Your task to perform on an android device: Clear the cart on amazon.com. Search for razer naga on amazon.com, select the first entry, and add it to the cart. Image 0: 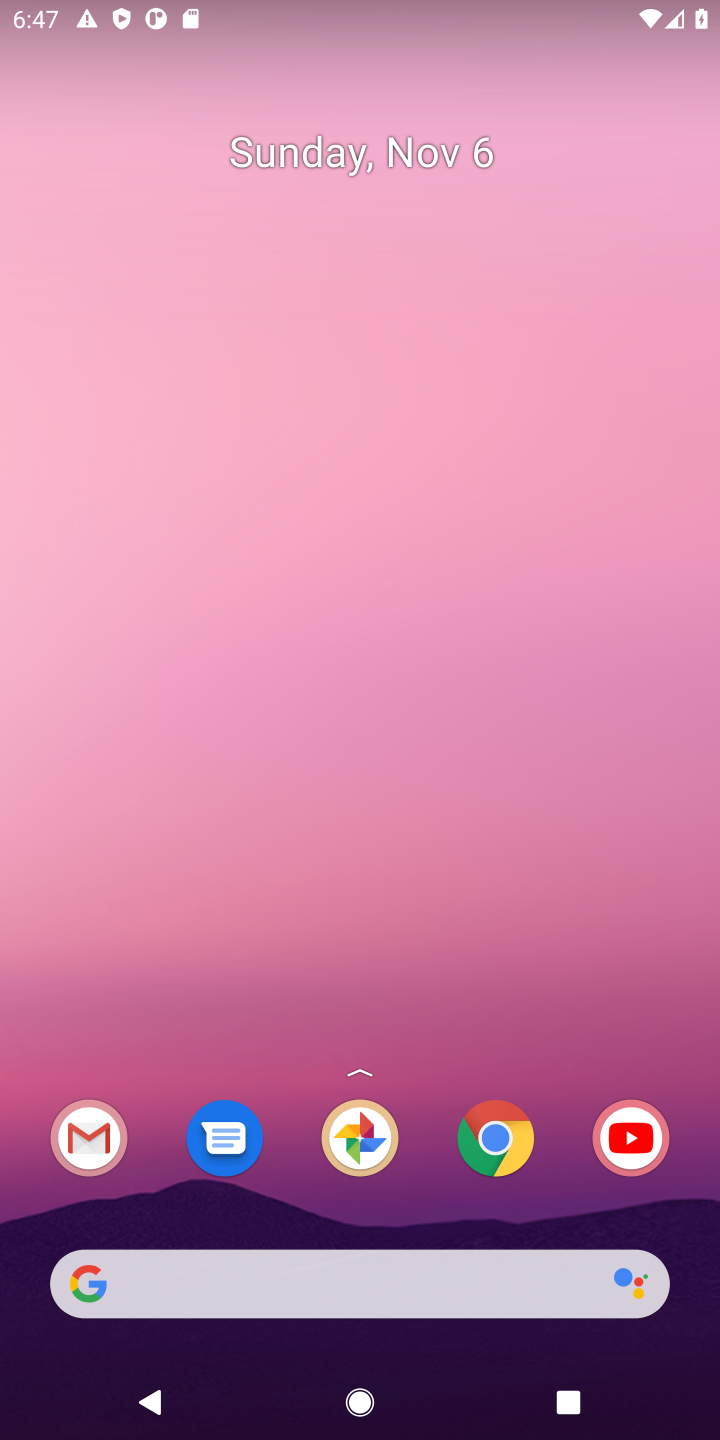
Step 0: click (490, 1142)
Your task to perform on an android device: Clear the cart on amazon.com. Search for razer naga on amazon.com, select the first entry, and add it to the cart. Image 1: 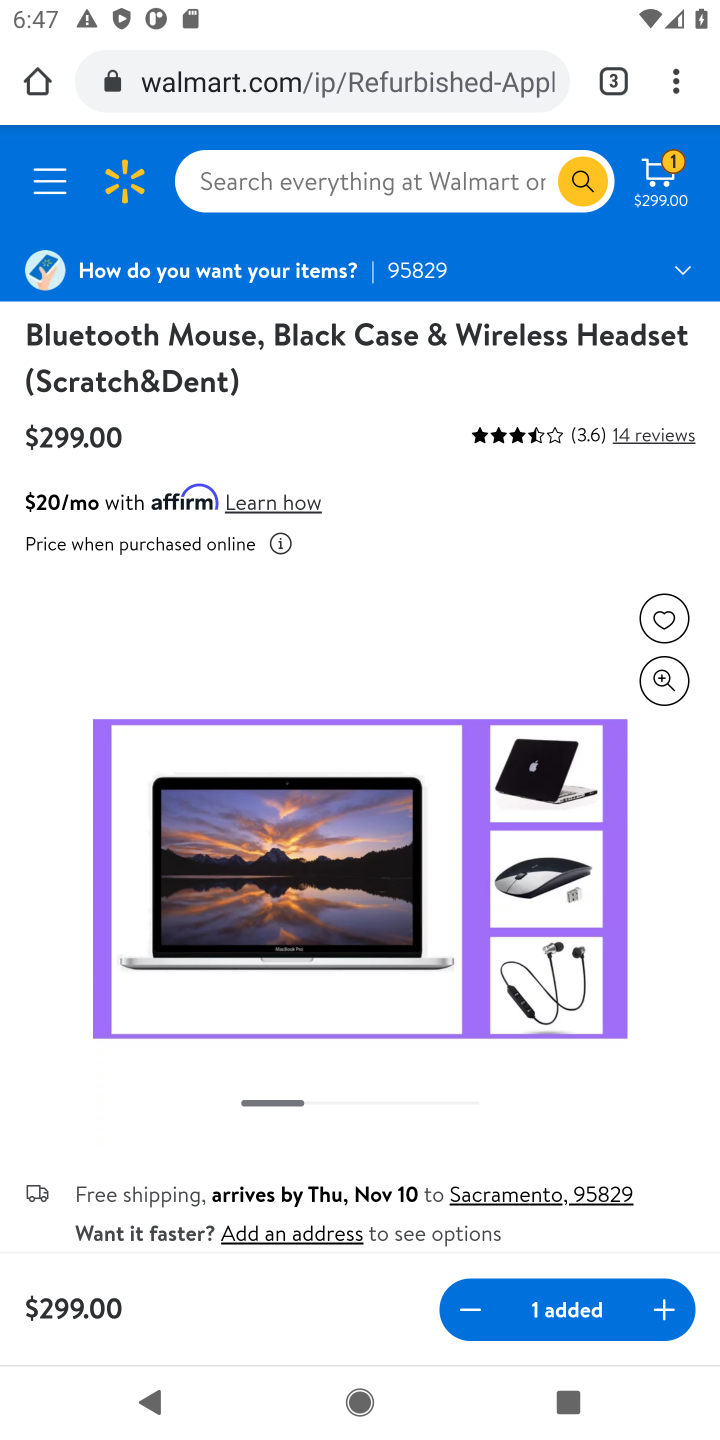
Step 1: click (622, 89)
Your task to perform on an android device: Clear the cart on amazon.com. Search for razer naga on amazon.com, select the first entry, and add it to the cart. Image 2: 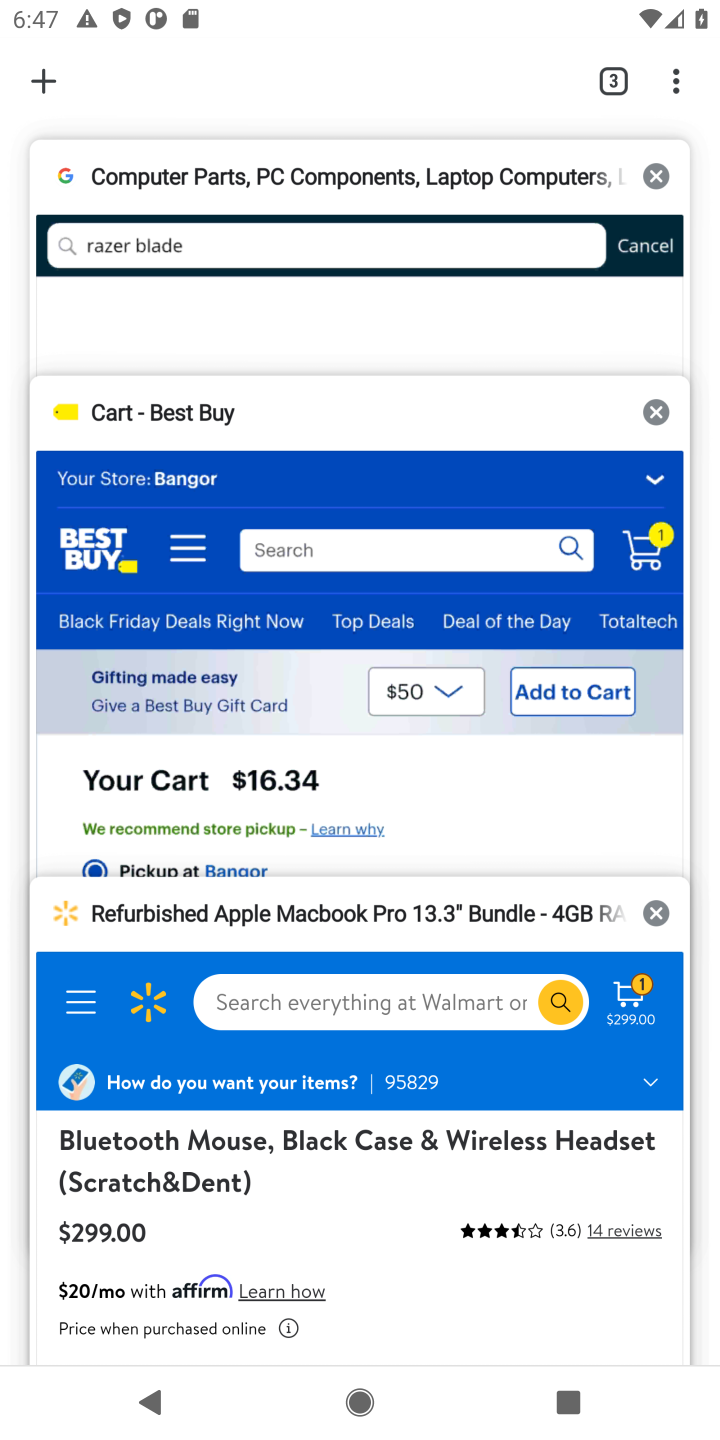
Step 2: click (37, 87)
Your task to perform on an android device: Clear the cart on amazon.com. Search for razer naga on amazon.com, select the first entry, and add it to the cart. Image 3: 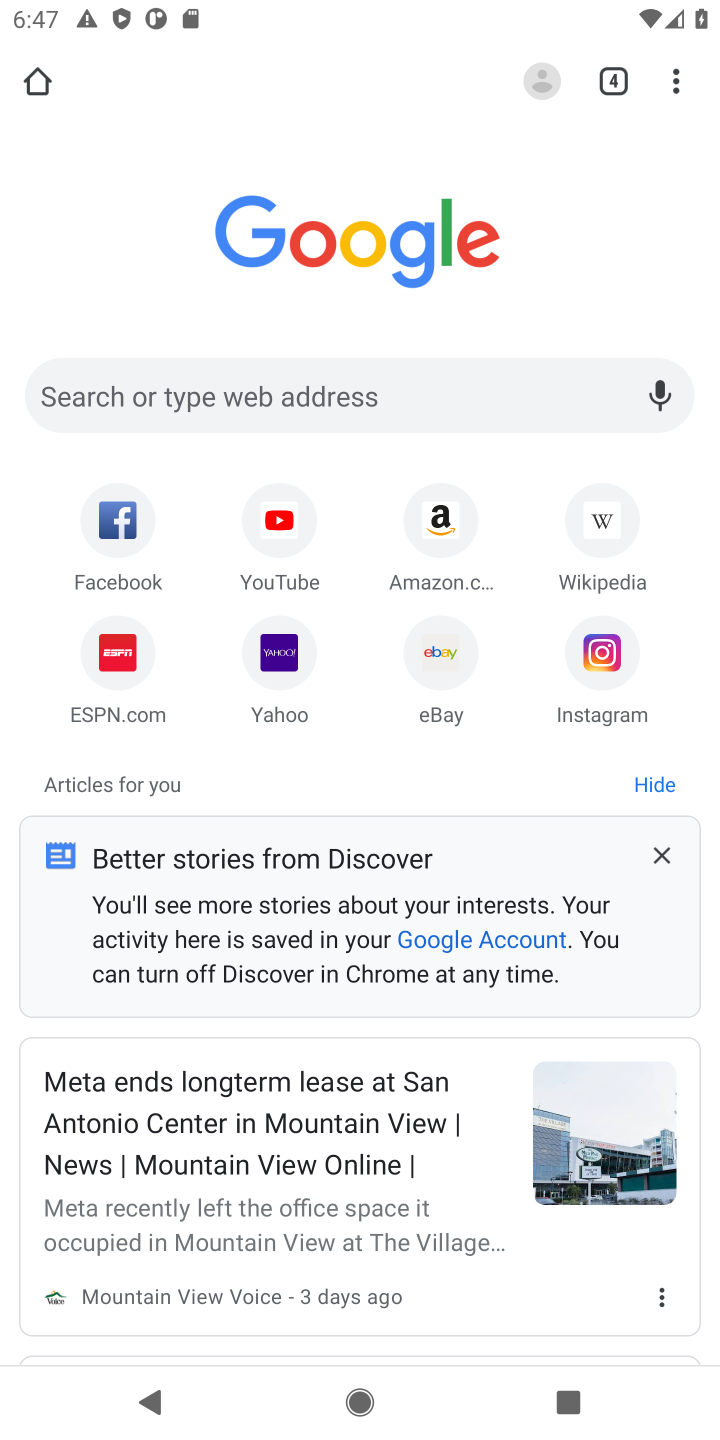
Step 3: click (446, 518)
Your task to perform on an android device: Clear the cart on amazon.com. Search for razer naga on amazon.com, select the first entry, and add it to the cart. Image 4: 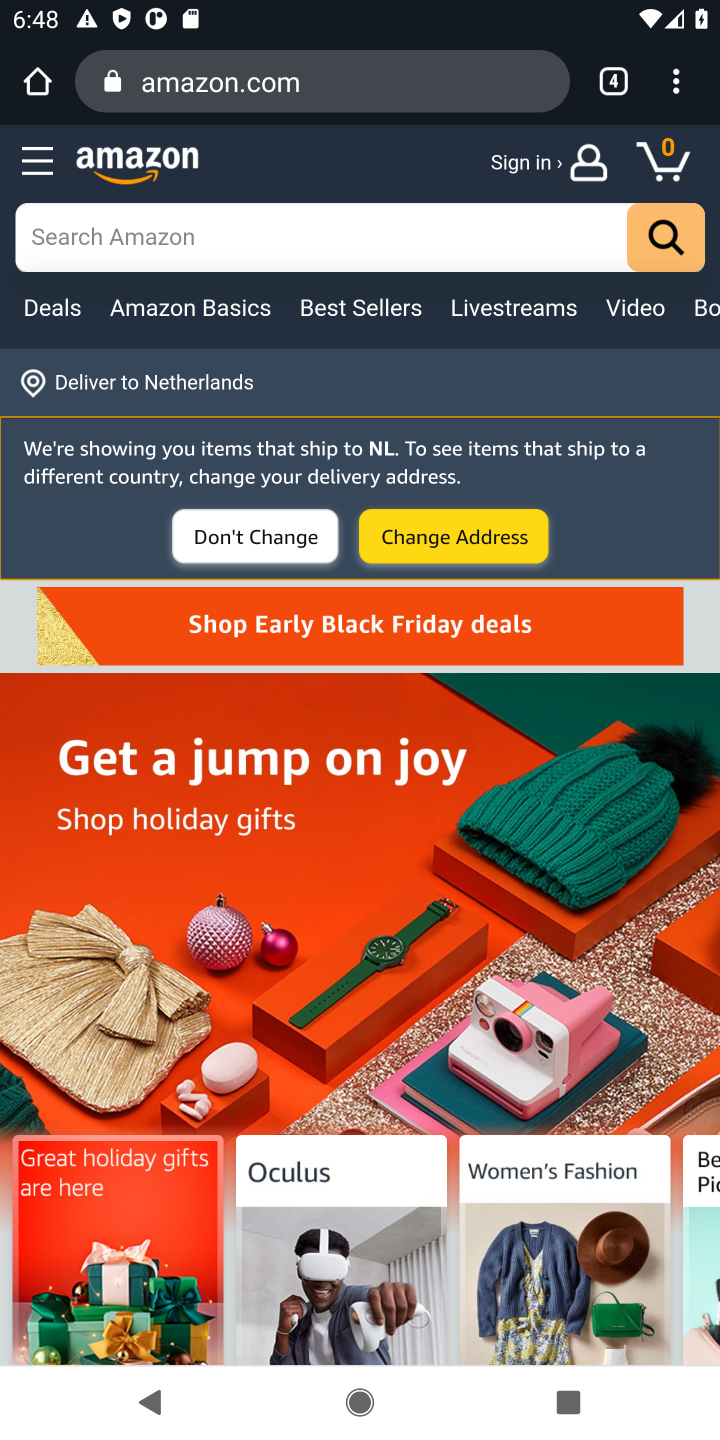
Step 4: click (143, 245)
Your task to perform on an android device: Clear the cart on amazon.com. Search for razer naga on amazon.com, select the first entry, and add it to the cart. Image 5: 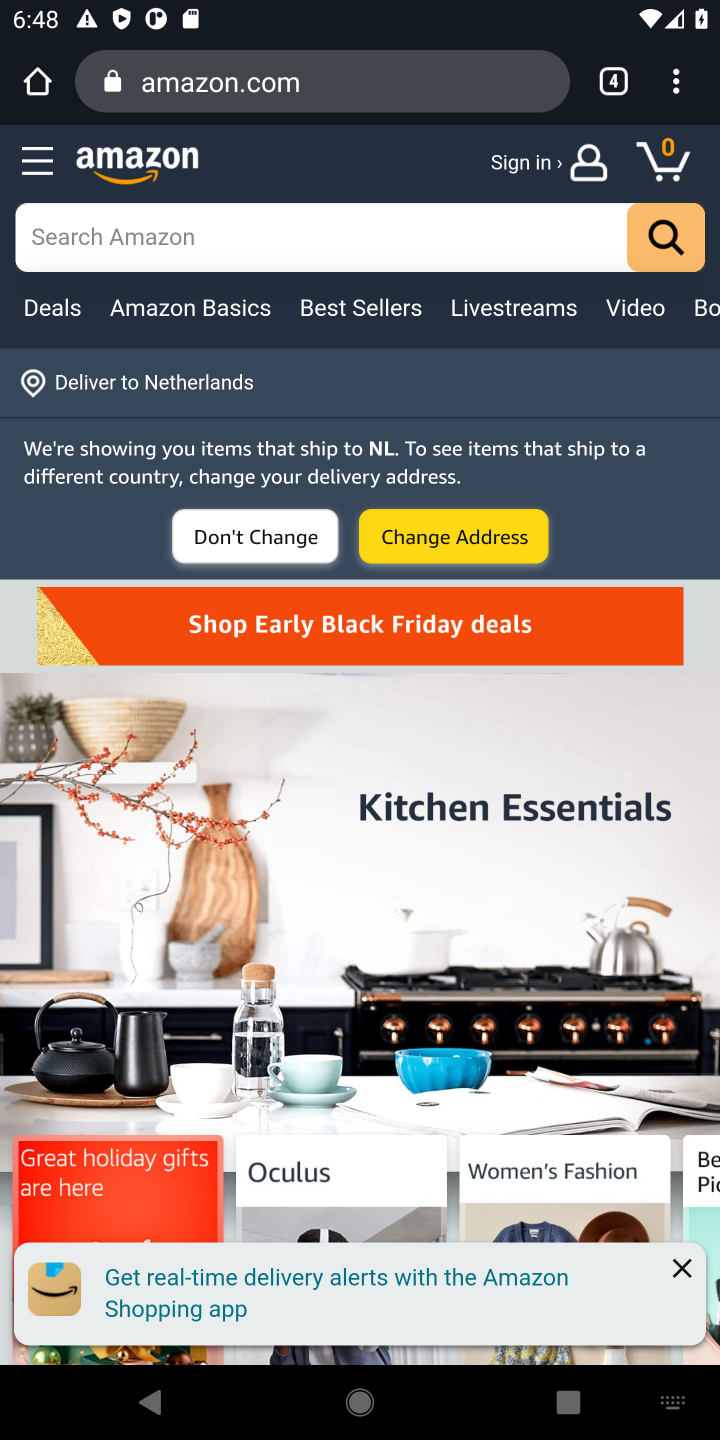
Step 5: type "razer naga"
Your task to perform on an android device: Clear the cart on amazon.com. Search for razer naga on amazon.com, select the first entry, and add it to the cart. Image 6: 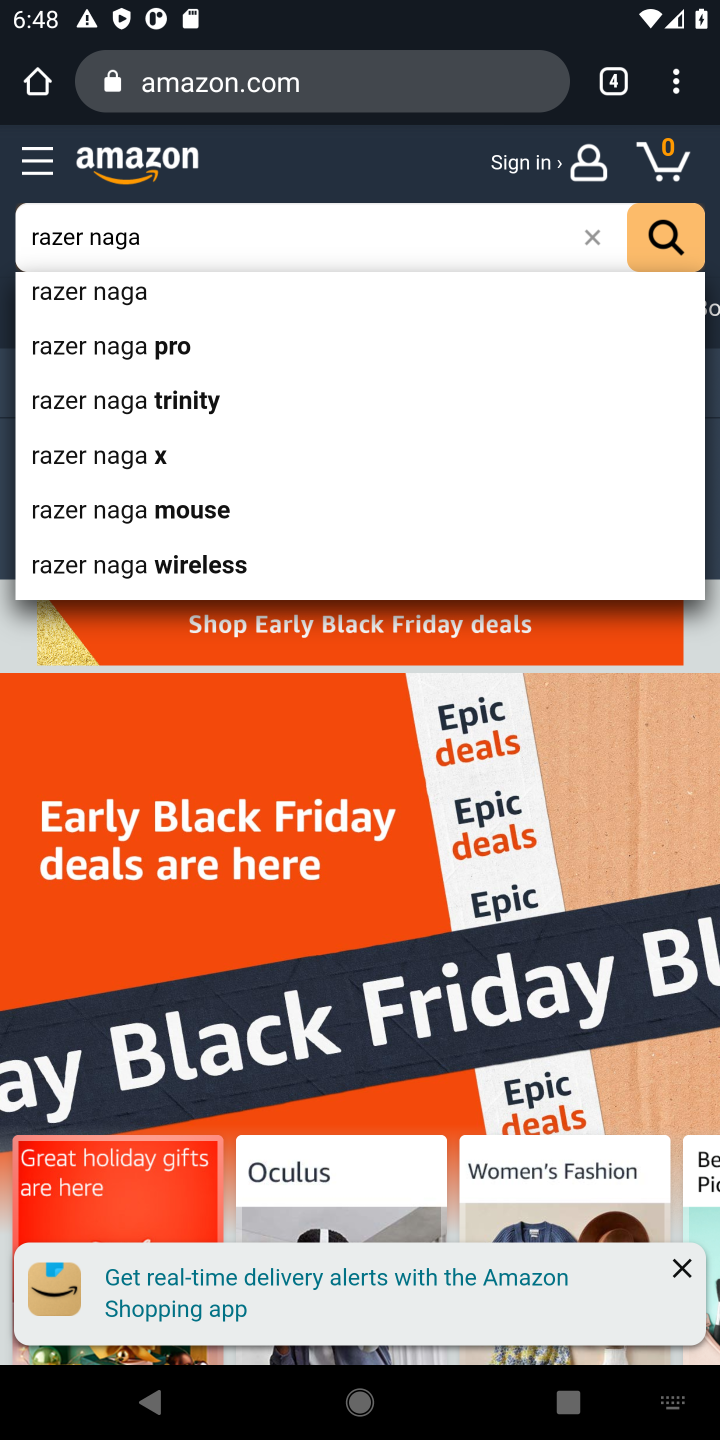
Step 6: click (137, 287)
Your task to perform on an android device: Clear the cart on amazon.com. Search for razer naga on amazon.com, select the first entry, and add it to the cart. Image 7: 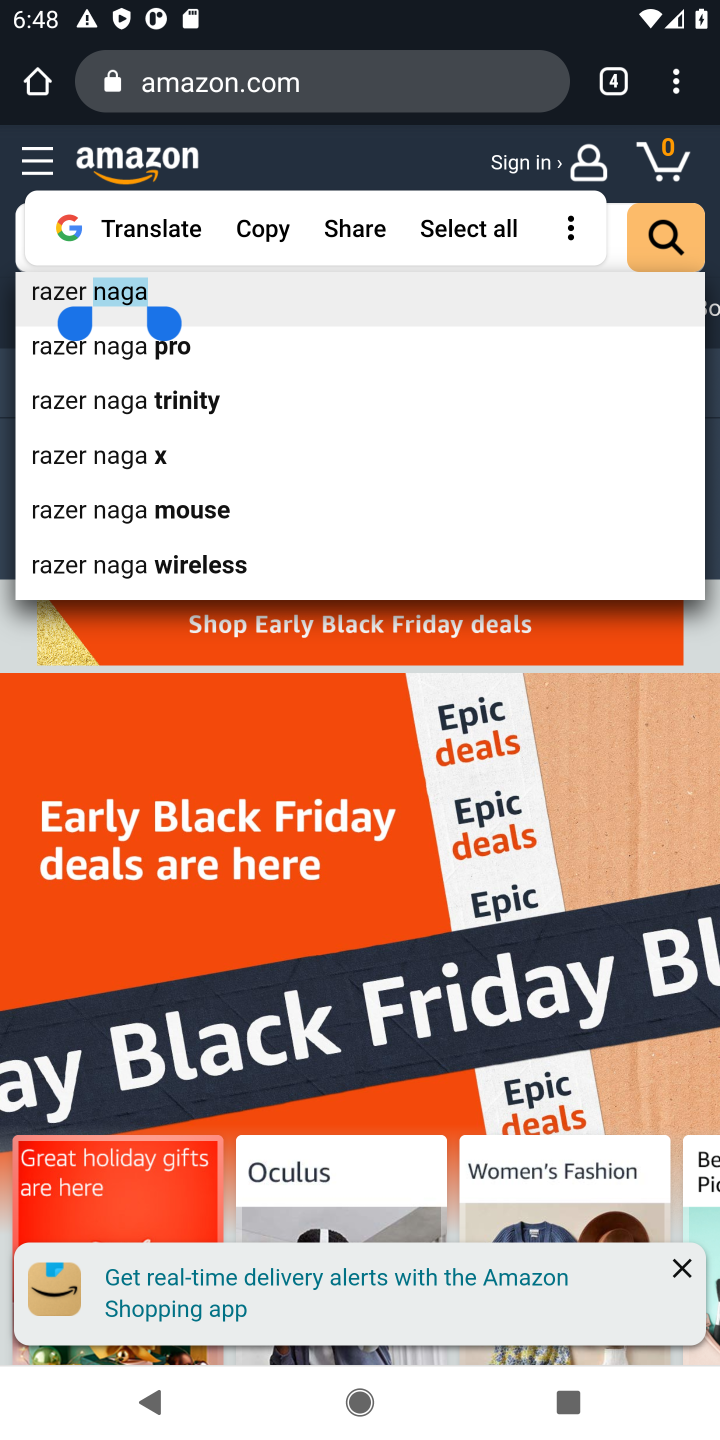
Step 7: click (42, 289)
Your task to perform on an android device: Clear the cart on amazon.com. Search for razer naga on amazon.com, select the first entry, and add it to the cart. Image 8: 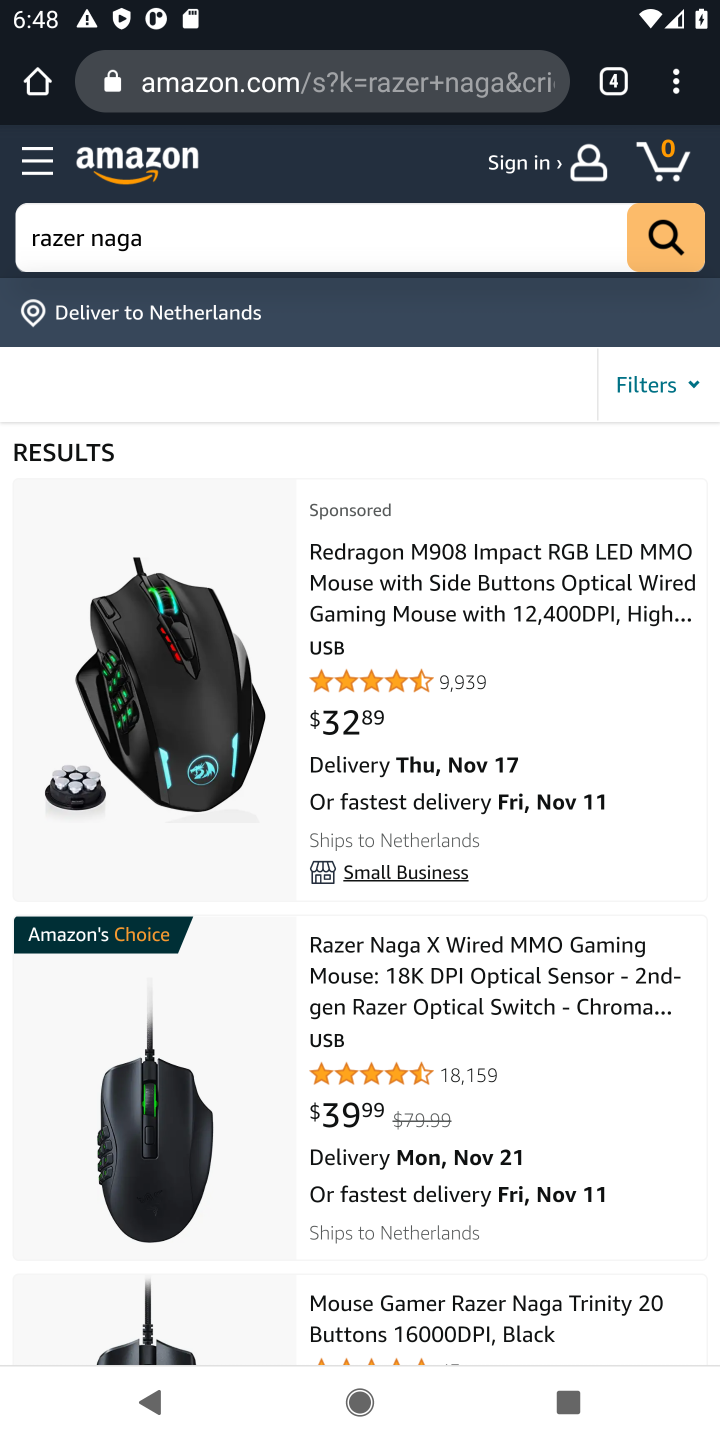
Step 8: click (492, 975)
Your task to perform on an android device: Clear the cart on amazon.com. Search for razer naga on amazon.com, select the first entry, and add it to the cart. Image 9: 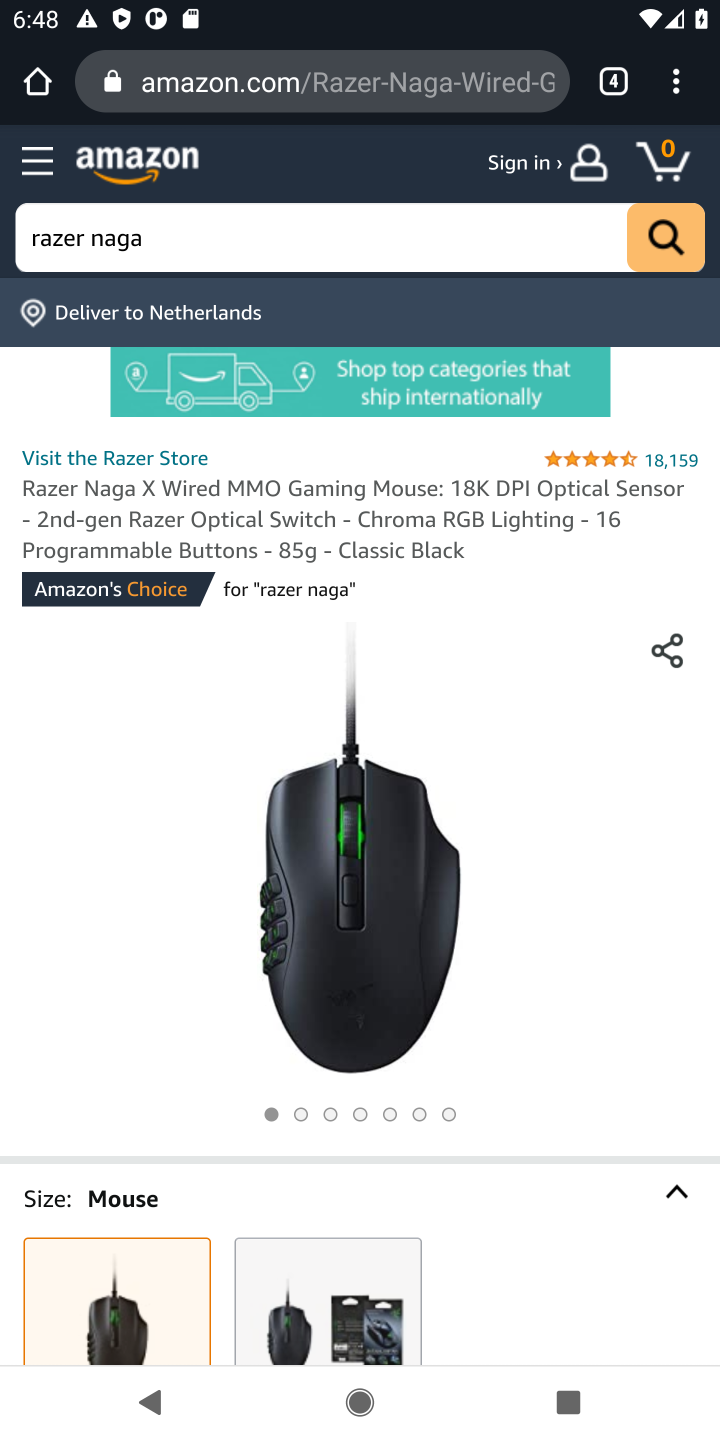
Step 9: drag from (294, 1136) to (407, 498)
Your task to perform on an android device: Clear the cart on amazon.com. Search for razer naga on amazon.com, select the first entry, and add it to the cart. Image 10: 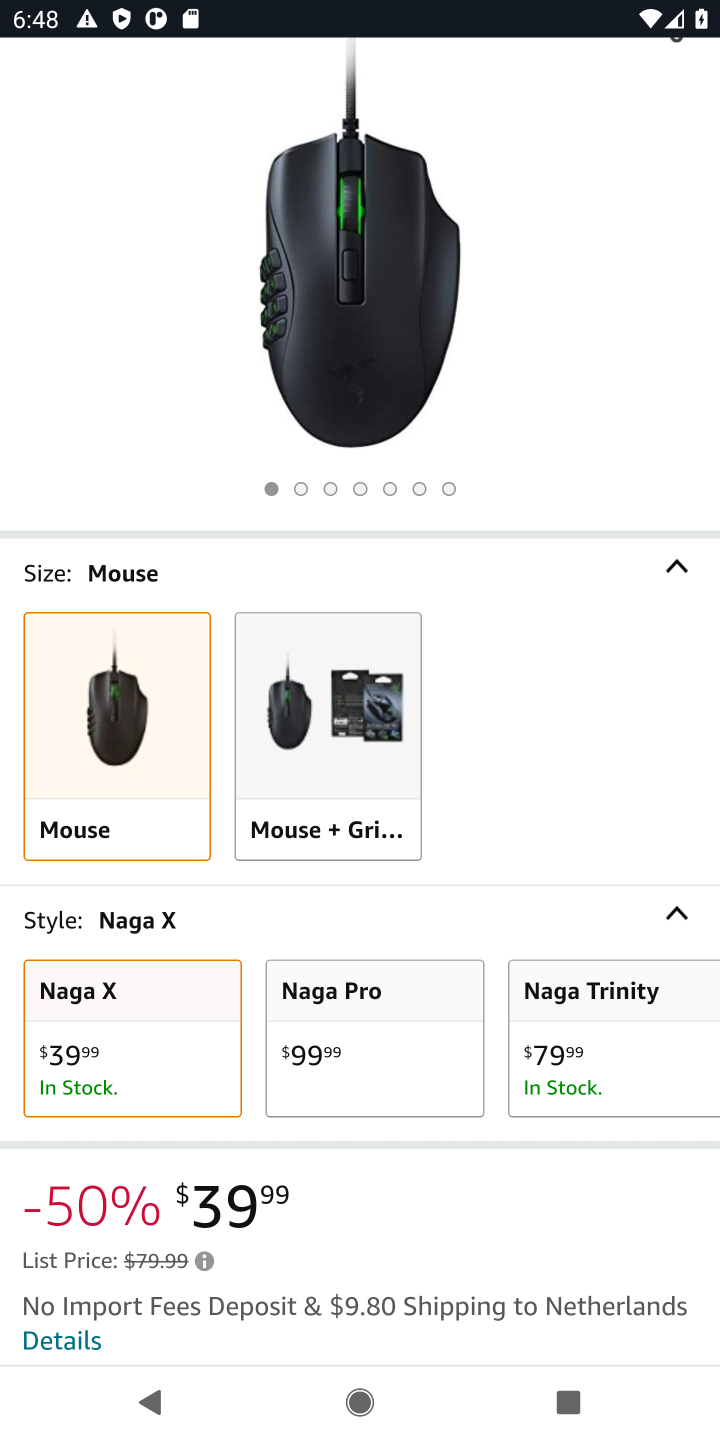
Step 10: drag from (398, 1201) to (482, 637)
Your task to perform on an android device: Clear the cart on amazon.com. Search for razer naga on amazon.com, select the first entry, and add it to the cart. Image 11: 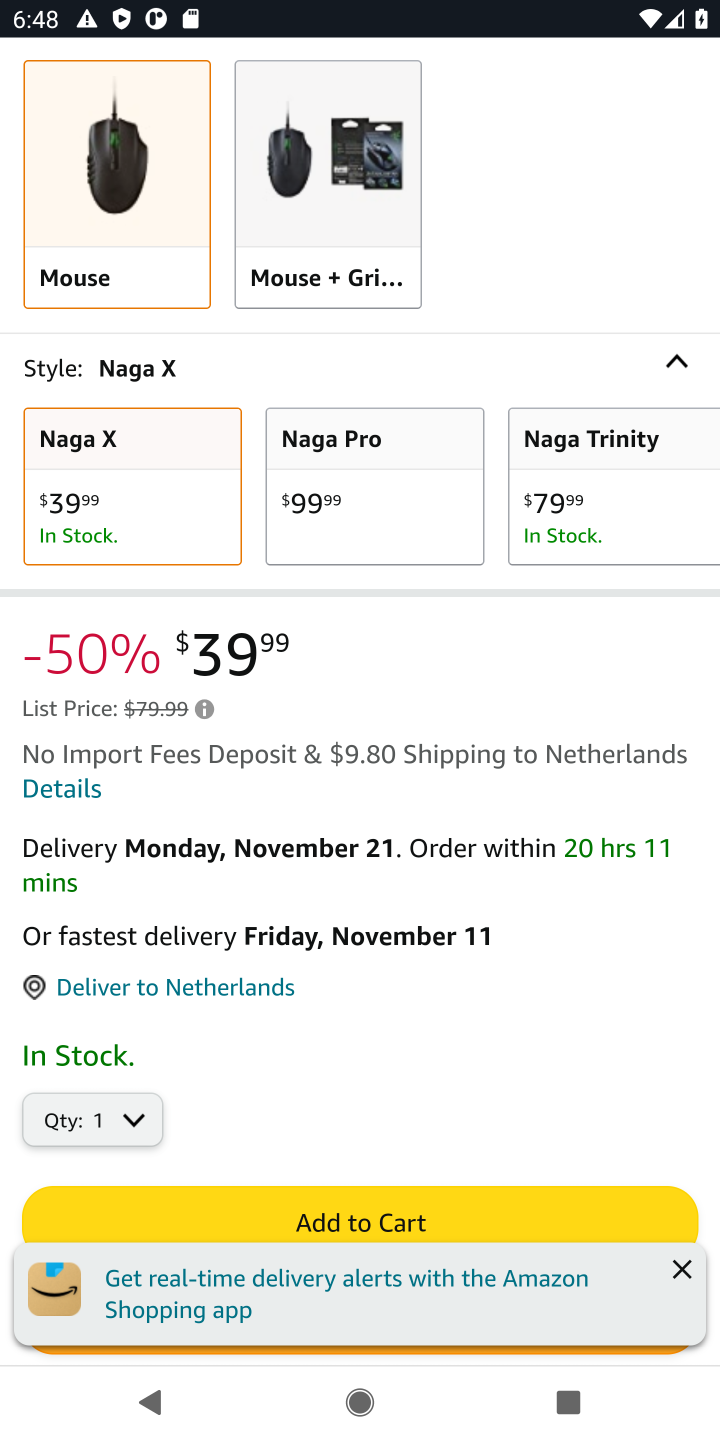
Step 11: click (381, 1205)
Your task to perform on an android device: Clear the cart on amazon.com. Search for razer naga on amazon.com, select the first entry, and add it to the cart. Image 12: 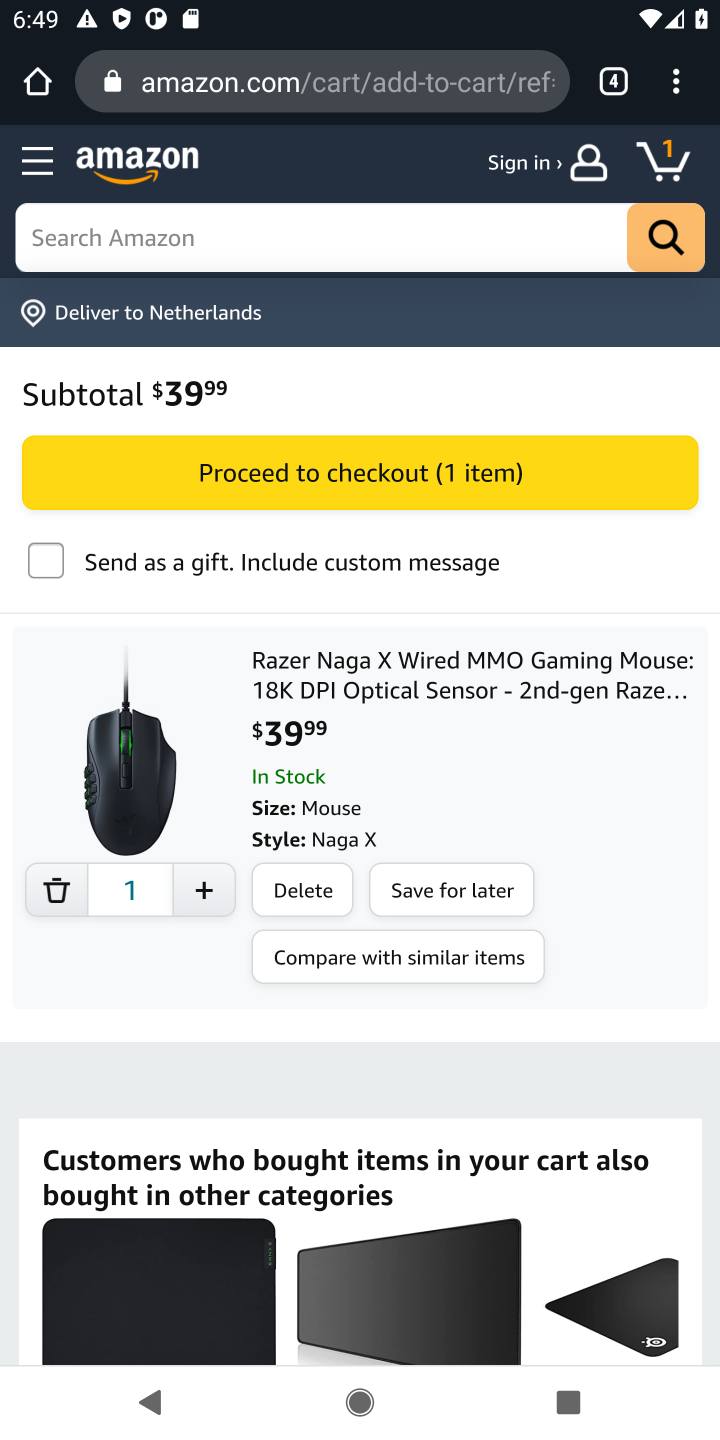
Step 12: task complete